Your task to perform on an android device: Go to notification settings Image 0: 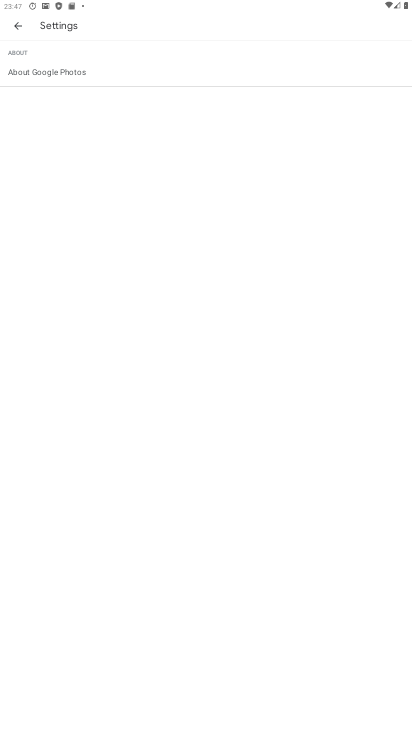
Step 0: press home button
Your task to perform on an android device: Go to notification settings Image 1: 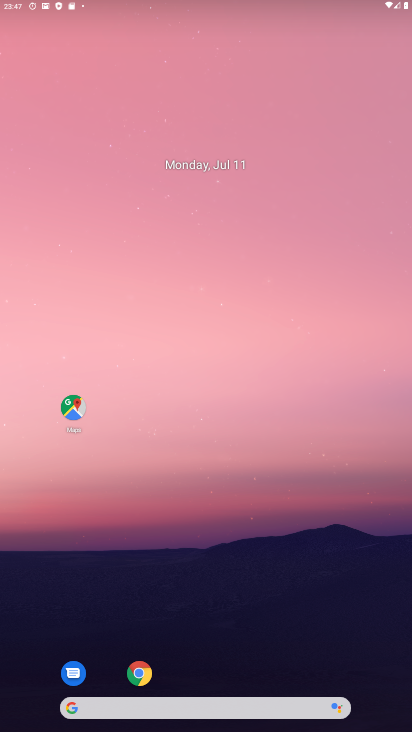
Step 1: drag from (310, 575) to (333, 114)
Your task to perform on an android device: Go to notification settings Image 2: 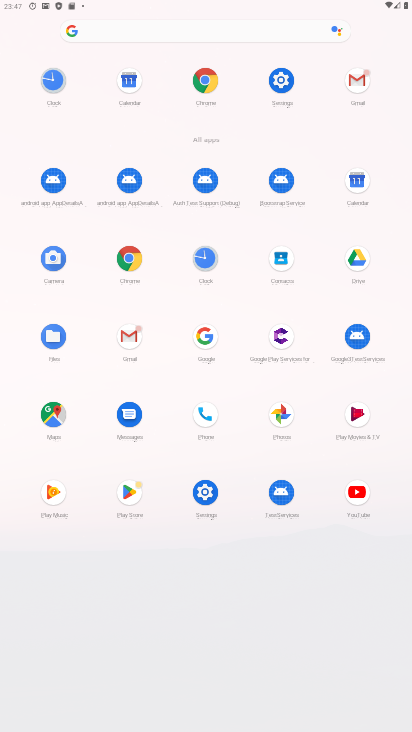
Step 2: click (279, 87)
Your task to perform on an android device: Go to notification settings Image 3: 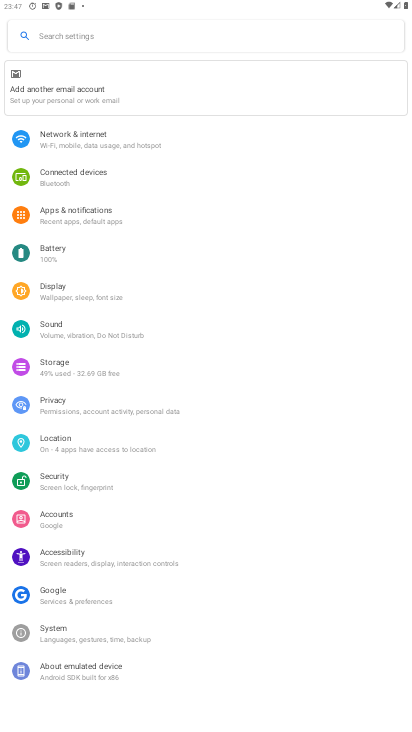
Step 3: click (83, 210)
Your task to perform on an android device: Go to notification settings Image 4: 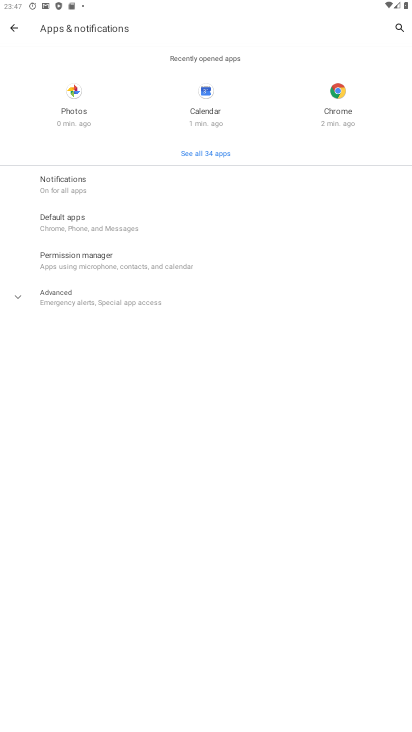
Step 4: click (72, 182)
Your task to perform on an android device: Go to notification settings Image 5: 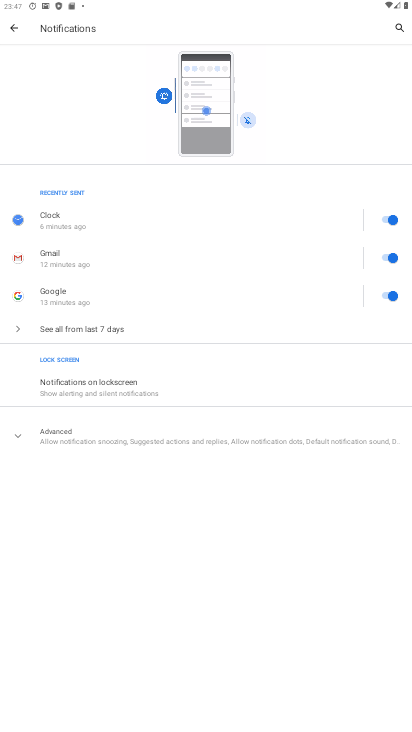
Step 5: task complete